Your task to perform on an android device: Go to Wikipedia Image 0: 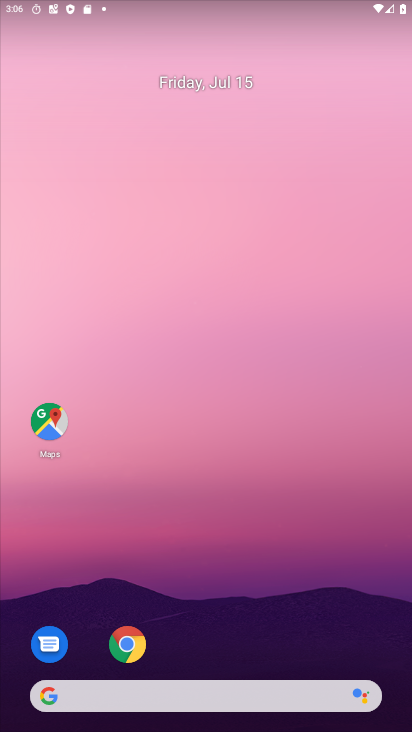
Step 0: click (124, 635)
Your task to perform on an android device: Go to Wikipedia Image 1: 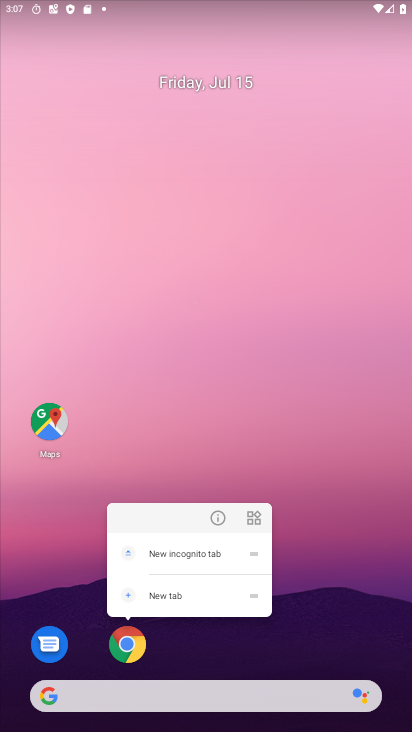
Step 1: click (135, 649)
Your task to perform on an android device: Go to Wikipedia Image 2: 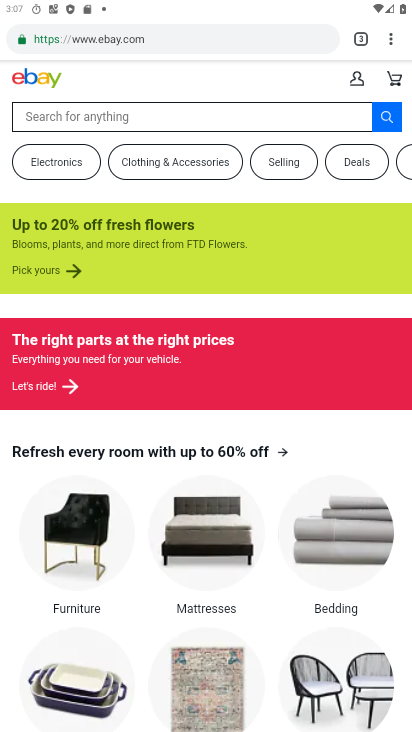
Step 2: click (359, 34)
Your task to perform on an android device: Go to Wikipedia Image 3: 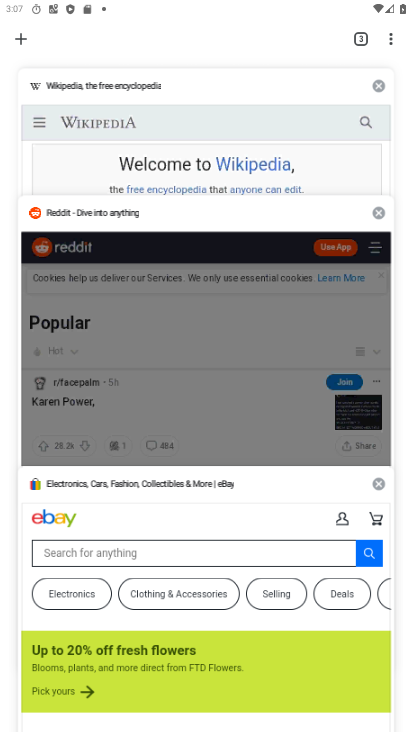
Step 3: click (89, 88)
Your task to perform on an android device: Go to Wikipedia Image 4: 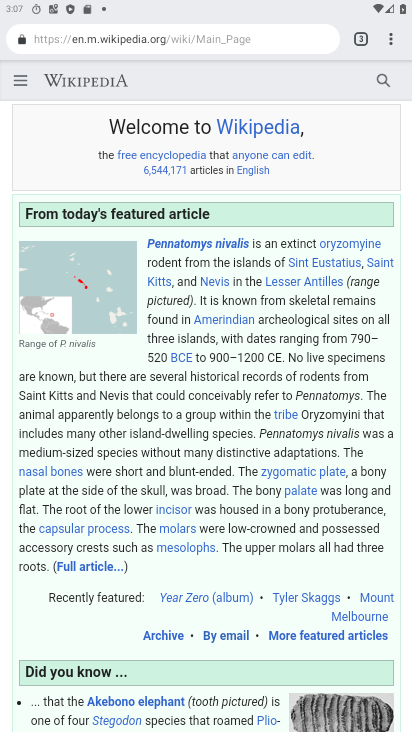
Step 4: task complete